Your task to perform on an android device: turn on priority inbox in the gmail app Image 0: 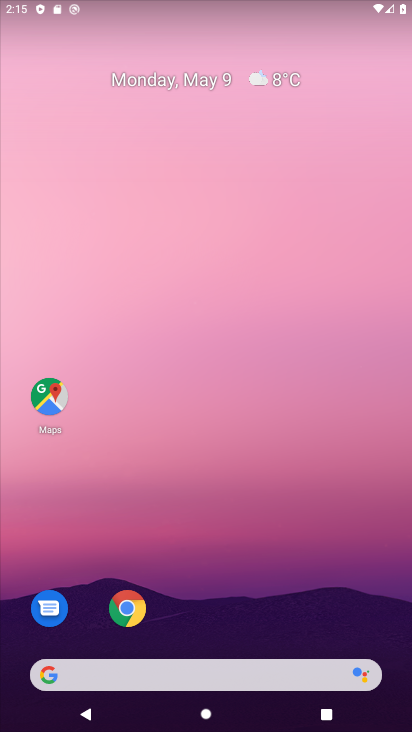
Step 0: drag from (112, 642) to (189, 93)
Your task to perform on an android device: turn on priority inbox in the gmail app Image 1: 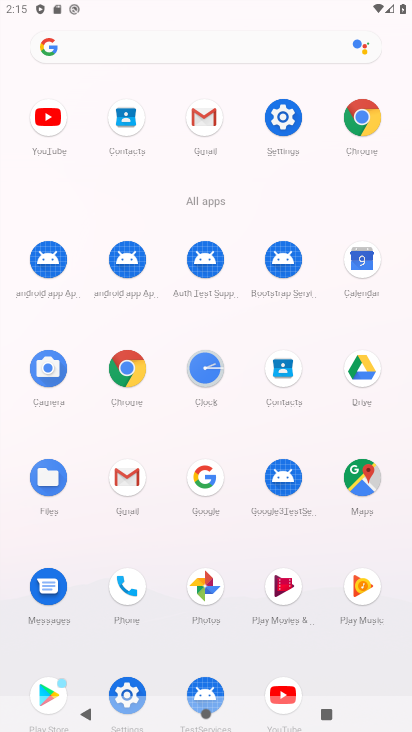
Step 1: click (202, 118)
Your task to perform on an android device: turn on priority inbox in the gmail app Image 2: 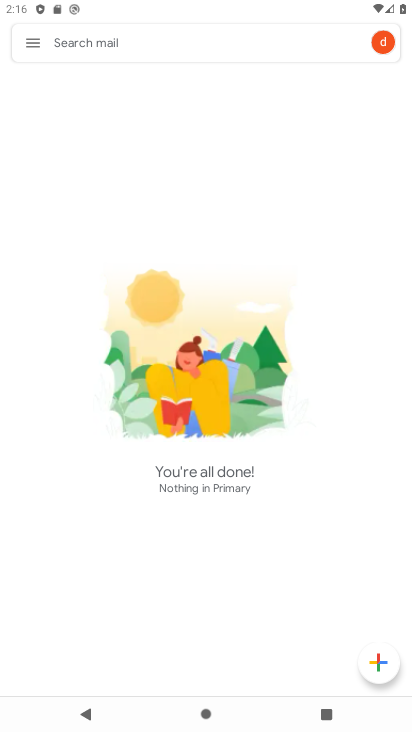
Step 2: click (30, 52)
Your task to perform on an android device: turn on priority inbox in the gmail app Image 3: 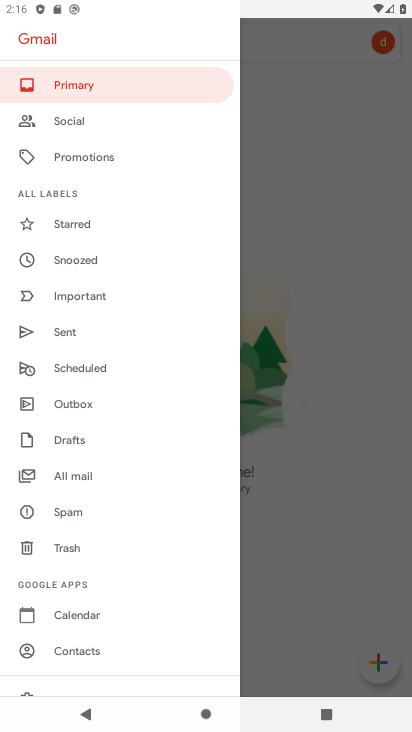
Step 3: drag from (103, 638) to (109, 318)
Your task to perform on an android device: turn on priority inbox in the gmail app Image 4: 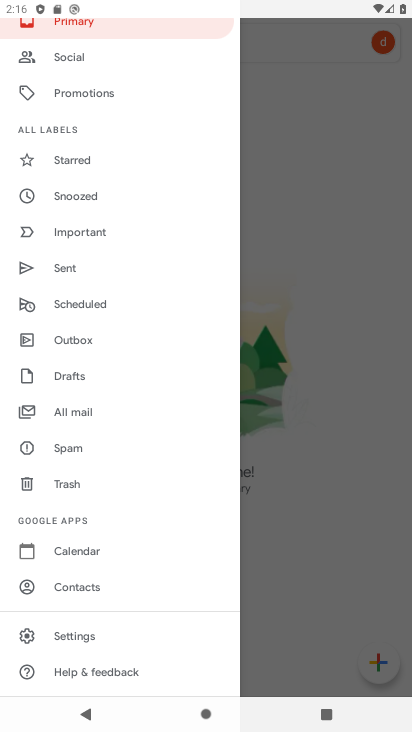
Step 4: click (78, 640)
Your task to perform on an android device: turn on priority inbox in the gmail app Image 5: 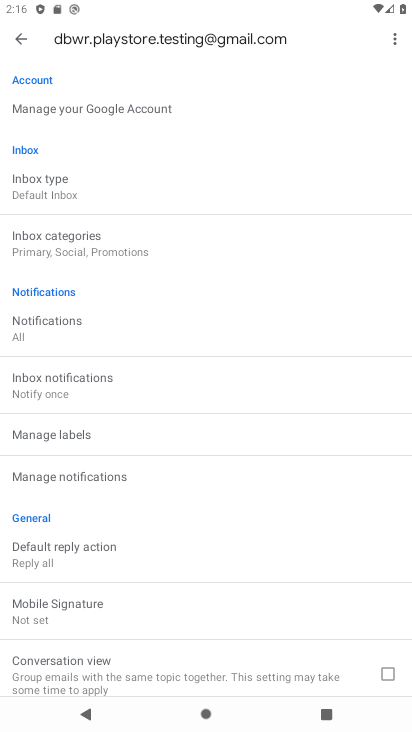
Step 5: click (56, 199)
Your task to perform on an android device: turn on priority inbox in the gmail app Image 6: 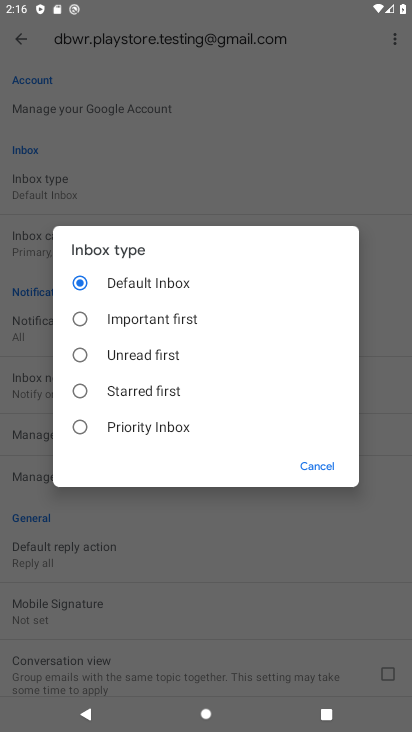
Step 6: click (120, 433)
Your task to perform on an android device: turn on priority inbox in the gmail app Image 7: 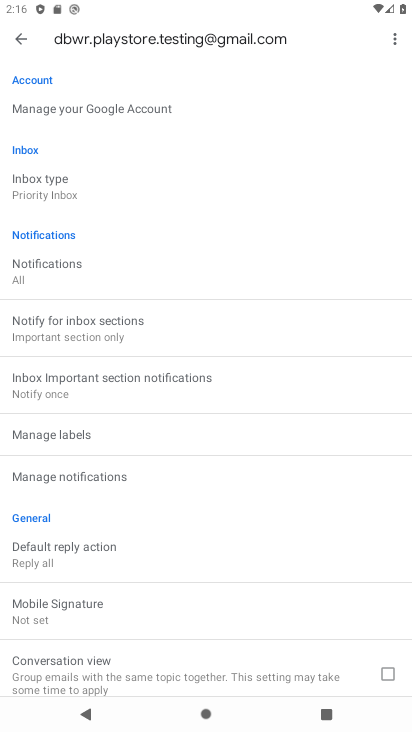
Step 7: task complete